Your task to perform on an android device: Go to wifi settings Image 0: 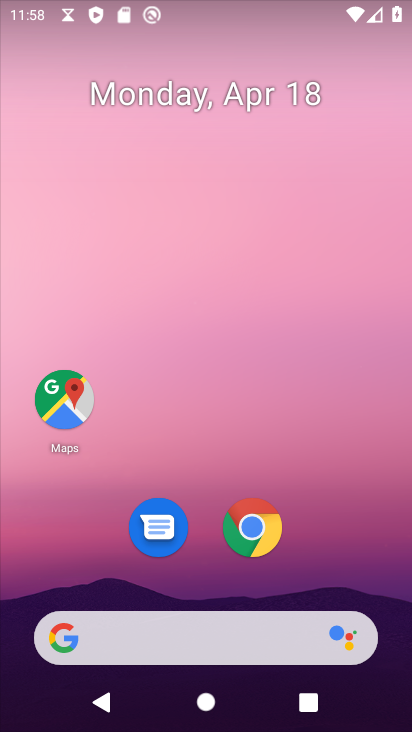
Step 0: drag from (326, 545) to (377, 45)
Your task to perform on an android device: Go to wifi settings Image 1: 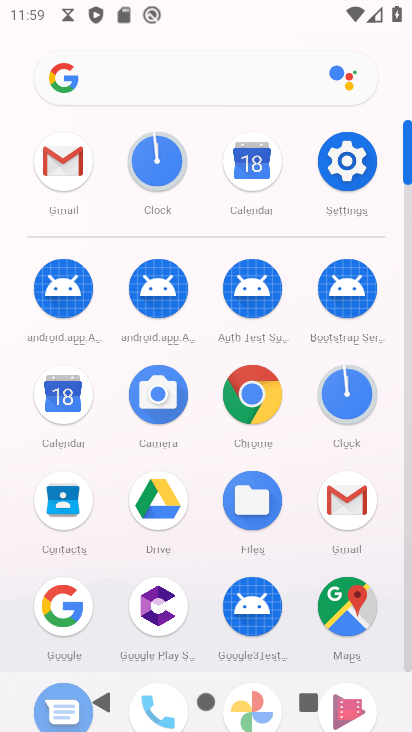
Step 1: click (355, 171)
Your task to perform on an android device: Go to wifi settings Image 2: 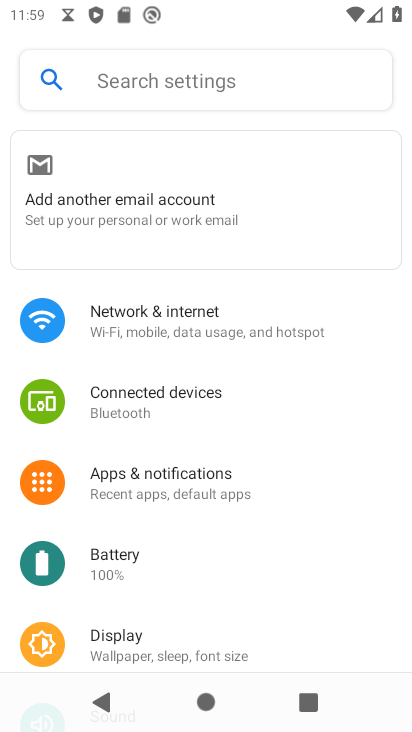
Step 2: click (177, 294)
Your task to perform on an android device: Go to wifi settings Image 3: 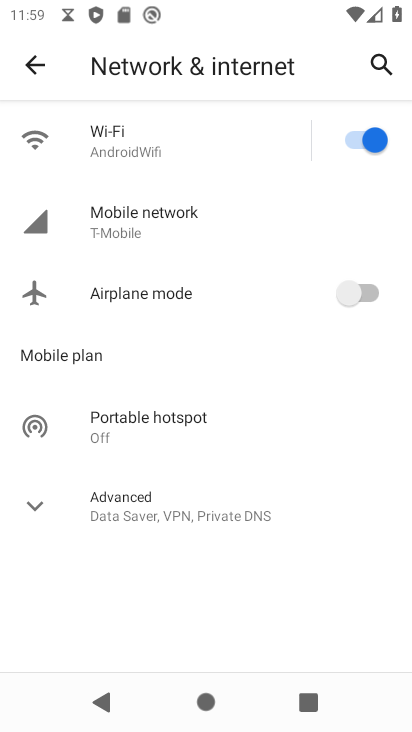
Step 3: click (123, 148)
Your task to perform on an android device: Go to wifi settings Image 4: 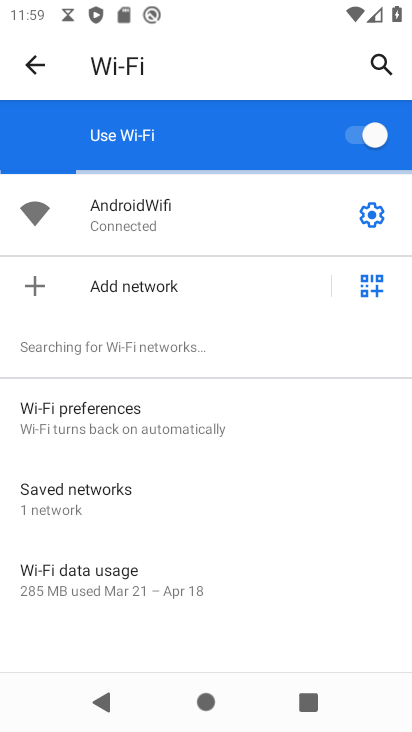
Step 4: task complete